Your task to perform on an android device: Clear all items from cart on target.com. Search for "logitech g933" on target.com, select the first entry, add it to the cart, then select checkout. Image 0: 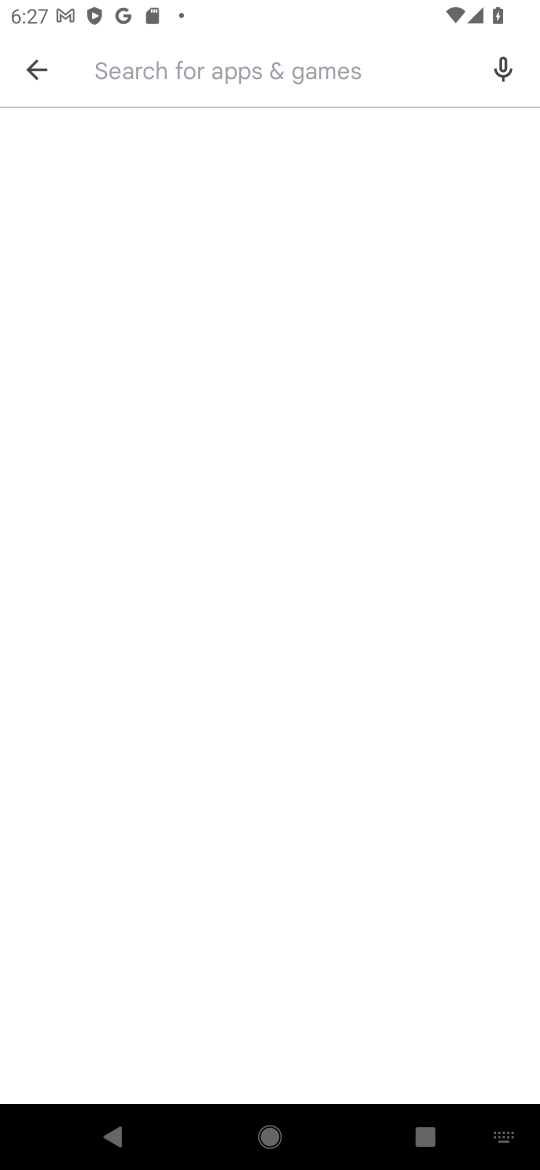
Step 0: task complete